Your task to perform on an android device: Open privacy settings Image 0: 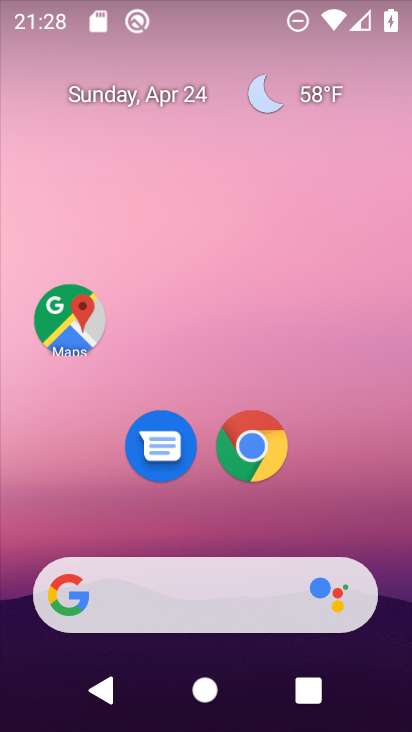
Step 0: press home button
Your task to perform on an android device: Open privacy settings Image 1: 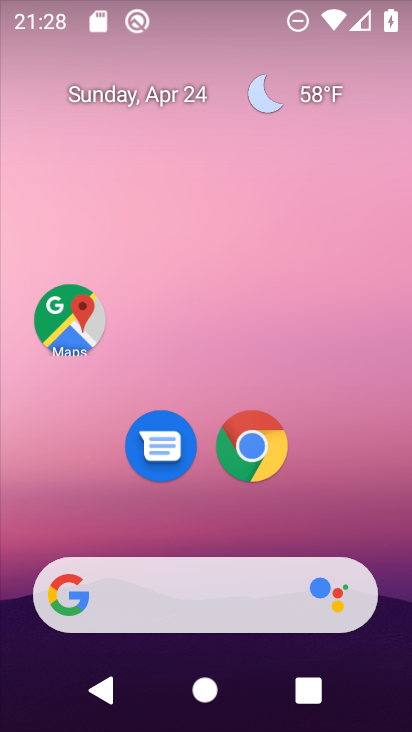
Step 1: drag from (173, 573) to (320, 47)
Your task to perform on an android device: Open privacy settings Image 2: 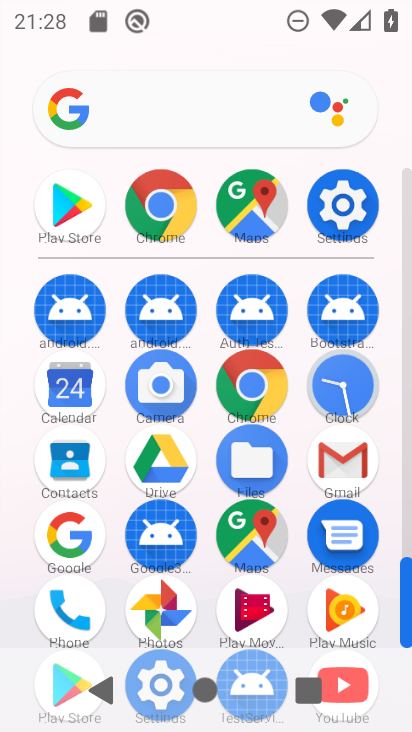
Step 2: click (340, 202)
Your task to perform on an android device: Open privacy settings Image 3: 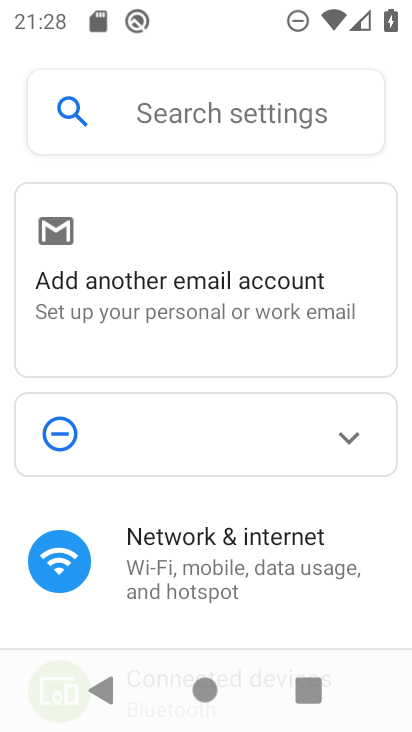
Step 3: drag from (211, 594) to (314, 437)
Your task to perform on an android device: Open privacy settings Image 4: 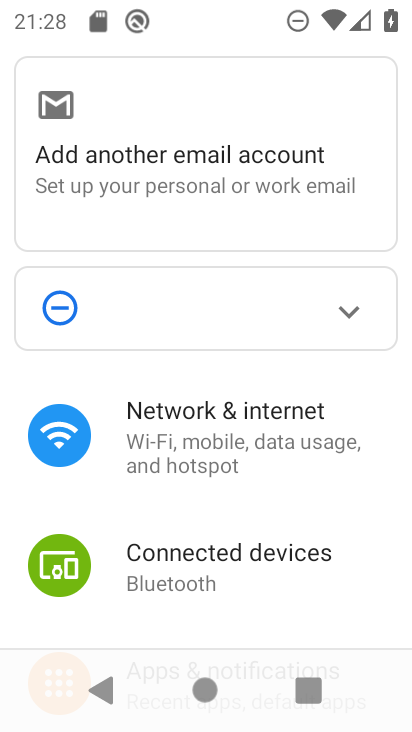
Step 4: drag from (223, 592) to (327, 308)
Your task to perform on an android device: Open privacy settings Image 5: 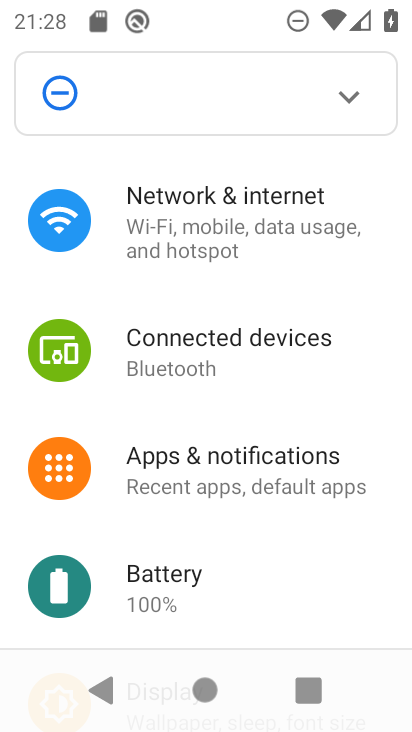
Step 5: drag from (253, 558) to (374, 61)
Your task to perform on an android device: Open privacy settings Image 6: 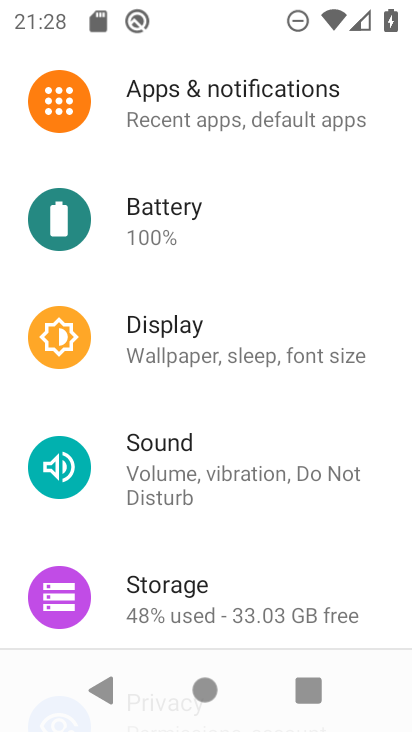
Step 6: drag from (263, 520) to (376, 123)
Your task to perform on an android device: Open privacy settings Image 7: 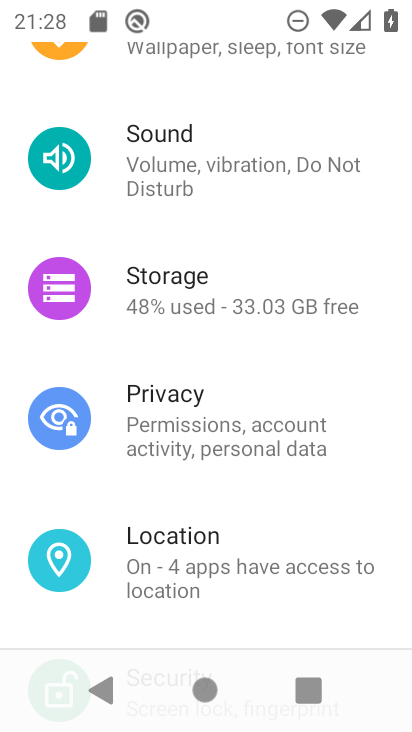
Step 7: click (207, 423)
Your task to perform on an android device: Open privacy settings Image 8: 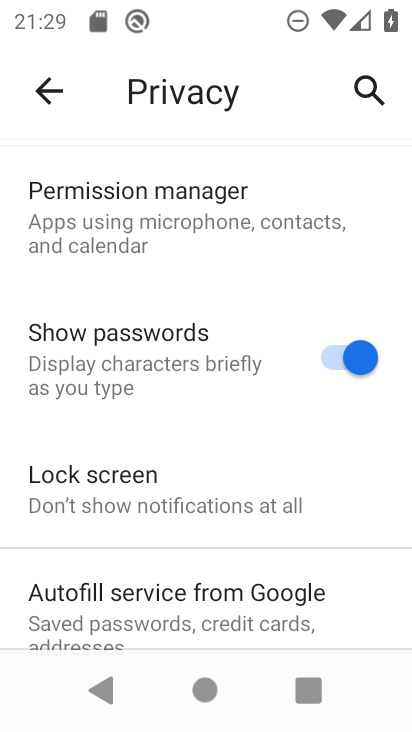
Step 8: task complete